Your task to perform on an android device: Open ESPN.com Image 0: 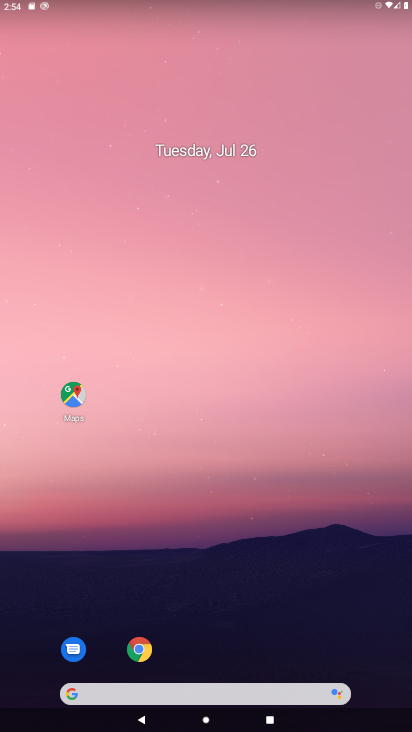
Step 0: click (146, 654)
Your task to perform on an android device: Open ESPN.com Image 1: 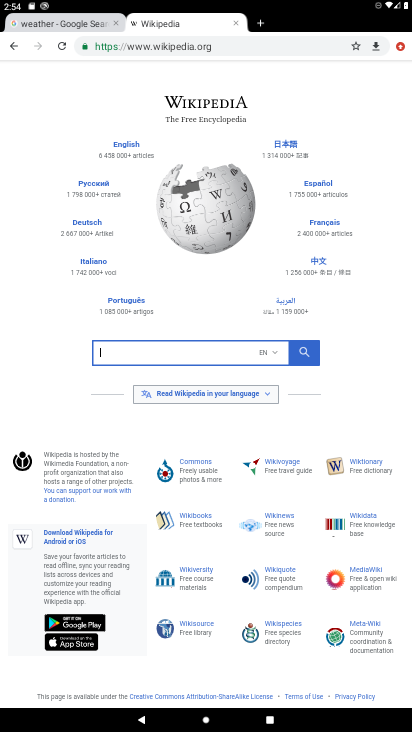
Step 1: click (176, 42)
Your task to perform on an android device: Open ESPN.com Image 2: 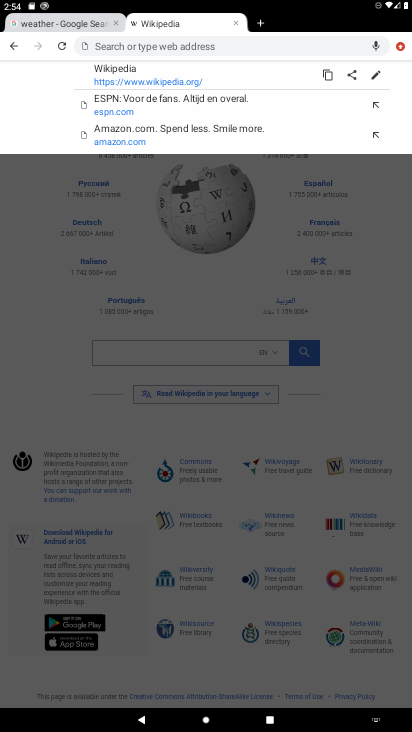
Step 2: type "espn.com"
Your task to perform on an android device: Open ESPN.com Image 3: 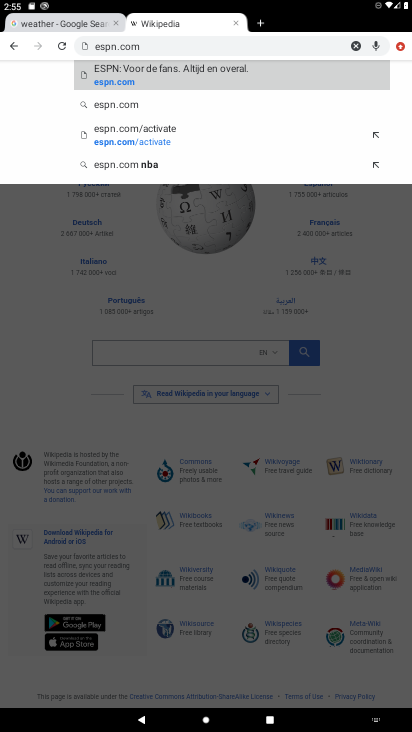
Step 3: click (151, 72)
Your task to perform on an android device: Open ESPN.com Image 4: 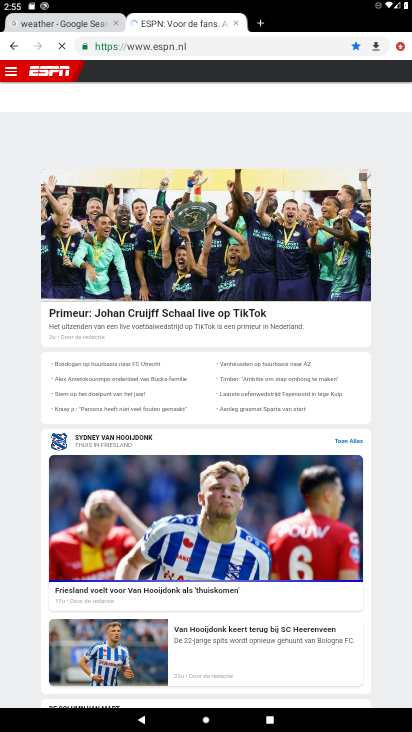
Step 4: task complete